Your task to perform on an android device: search for starred emails in the gmail app Image 0: 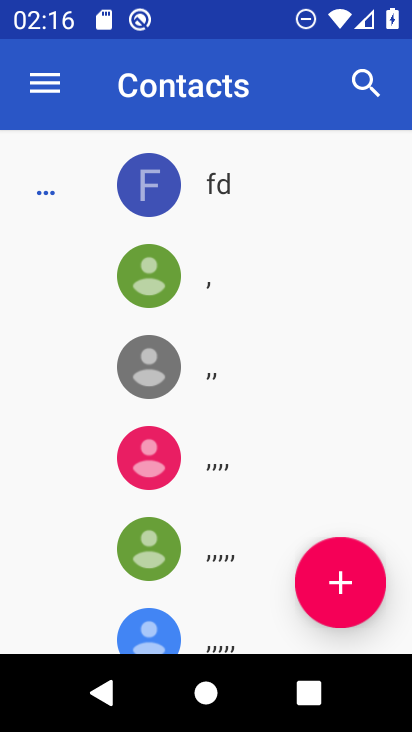
Step 0: press home button
Your task to perform on an android device: search for starred emails in the gmail app Image 1: 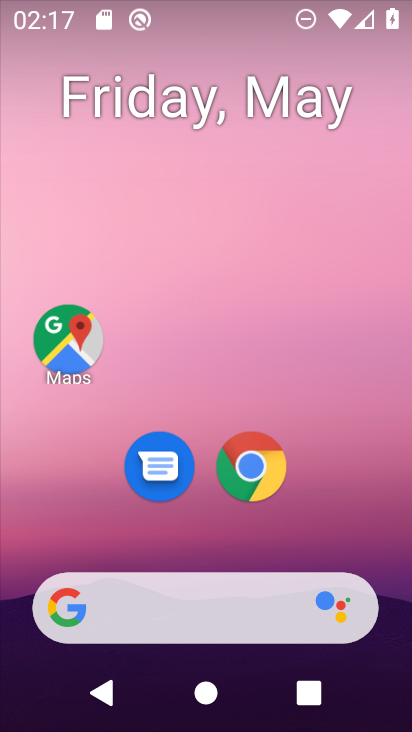
Step 1: drag from (293, 525) to (277, 76)
Your task to perform on an android device: search for starred emails in the gmail app Image 2: 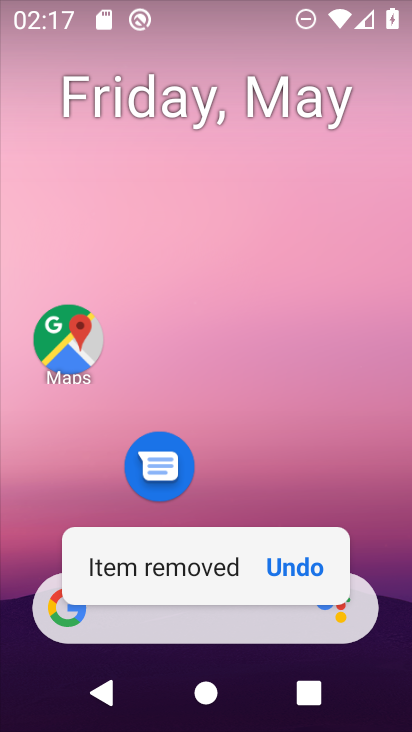
Step 2: click (314, 443)
Your task to perform on an android device: search for starred emails in the gmail app Image 3: 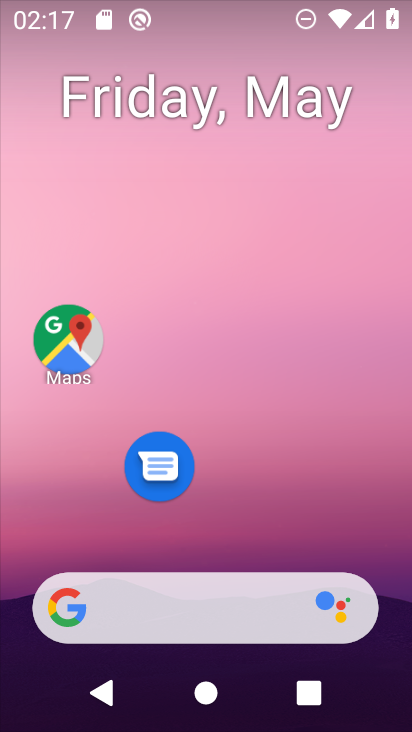
Step 3: drag from (314, 443) to (317, 2)
Your task to perform on an android device: search for starred emails in the gmail app Image 4: 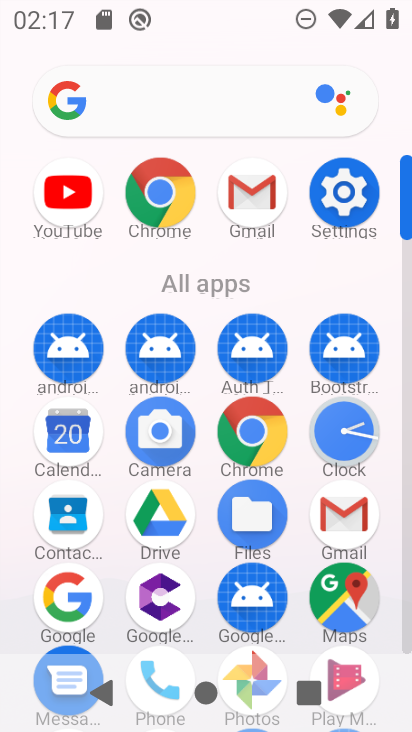
Step 4: click (256, 204)
Your task to perform on an android device: search for starred emails in the gmail app Image 5: 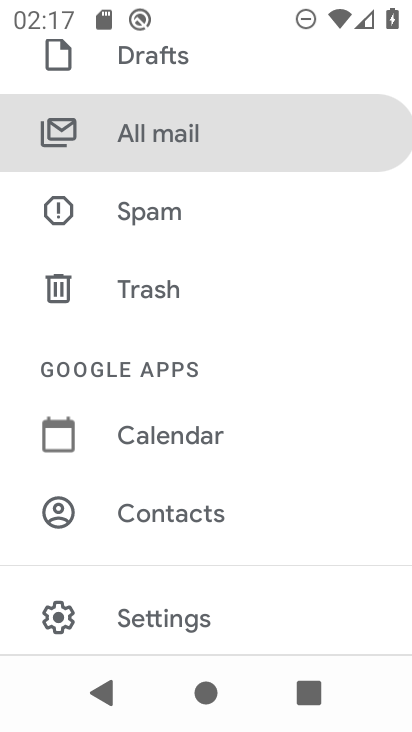
Step 5: drag from (177, 99) to (249, 630)
Your task to perform on an android device: search for starred emails in the gmail app Image 6: 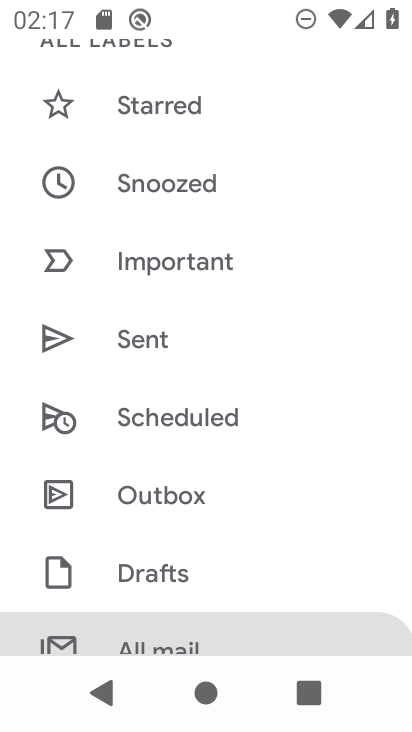
Step 6: click (169, 144)
Your task to perform on an android device: search for starred emails in the gmail app Image 7: 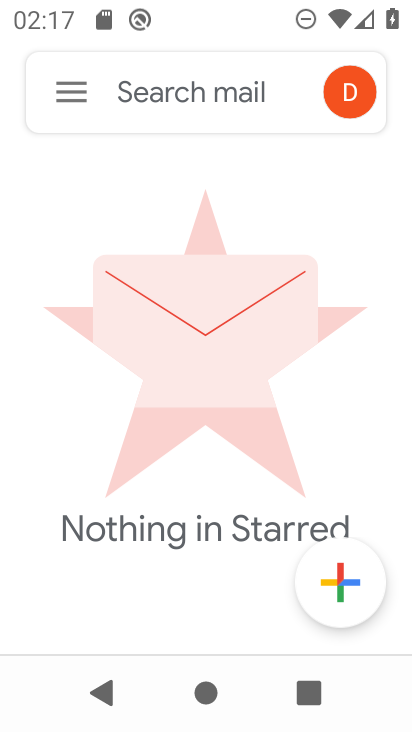
Step 7: task complete